Your task to perform on an android device: Clear the shopping cart on newegg. Image 0: 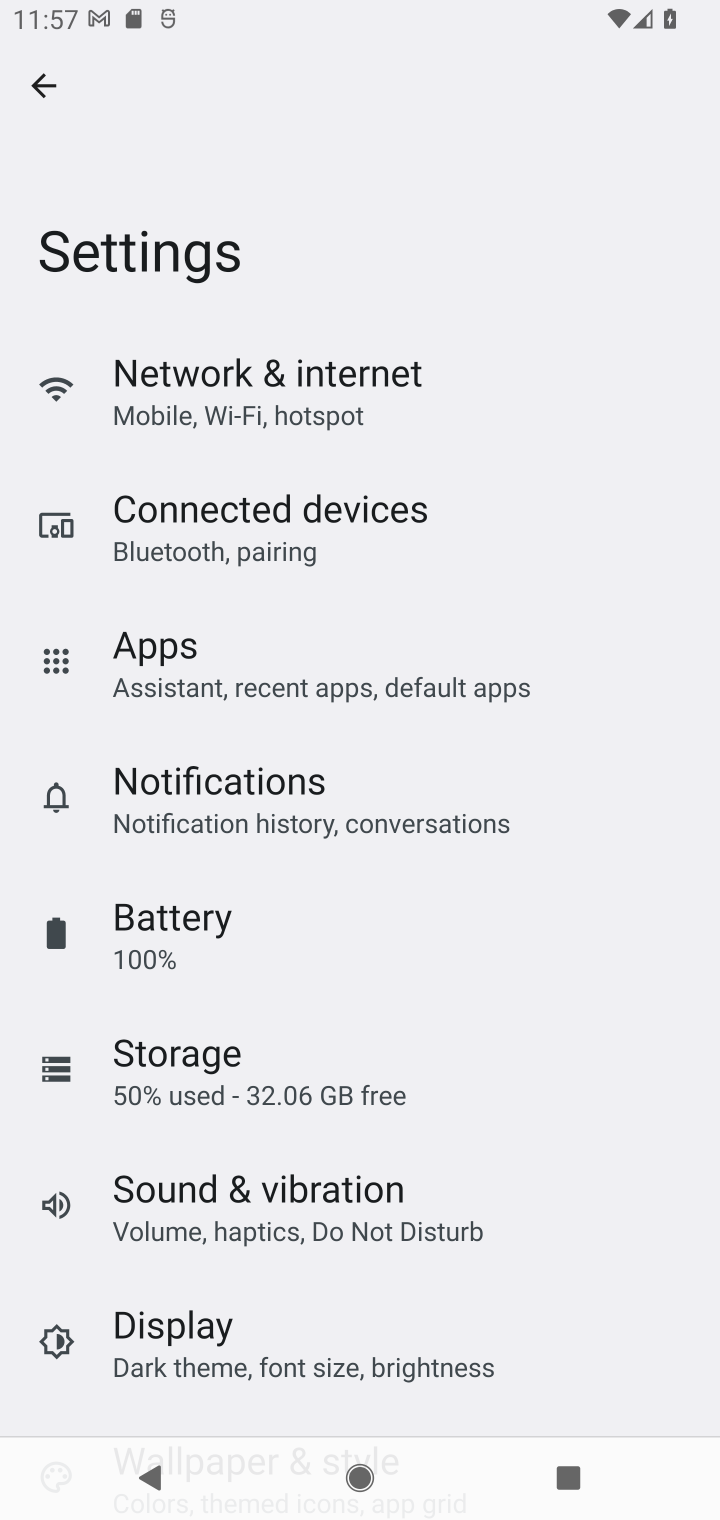
Step 0: press home button
Your task to perform on an android device: Clear the shopping cart on newegg. Image 1: 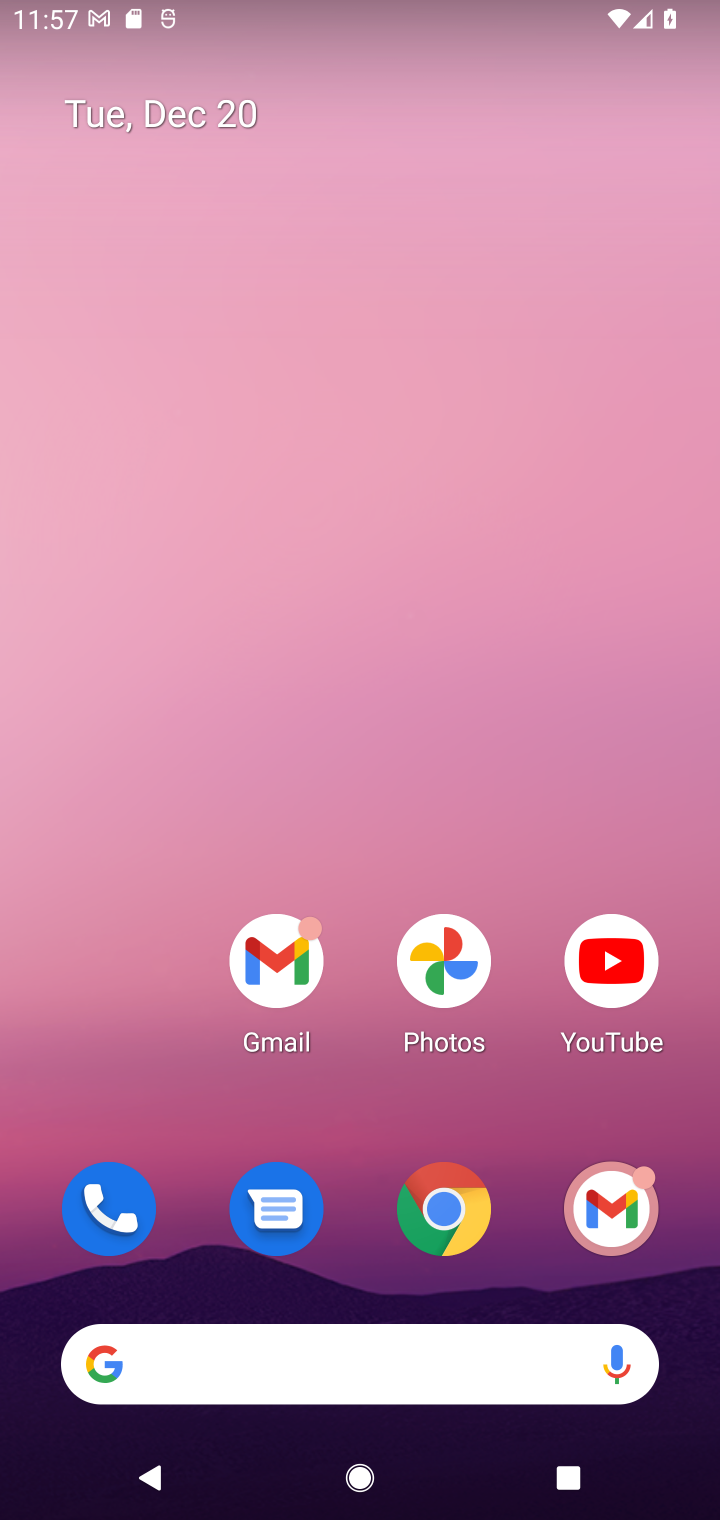
Step 1: click (464, 1223)
Your task to perform on an android device: Clear the shopping cart on newegg. Image 2: 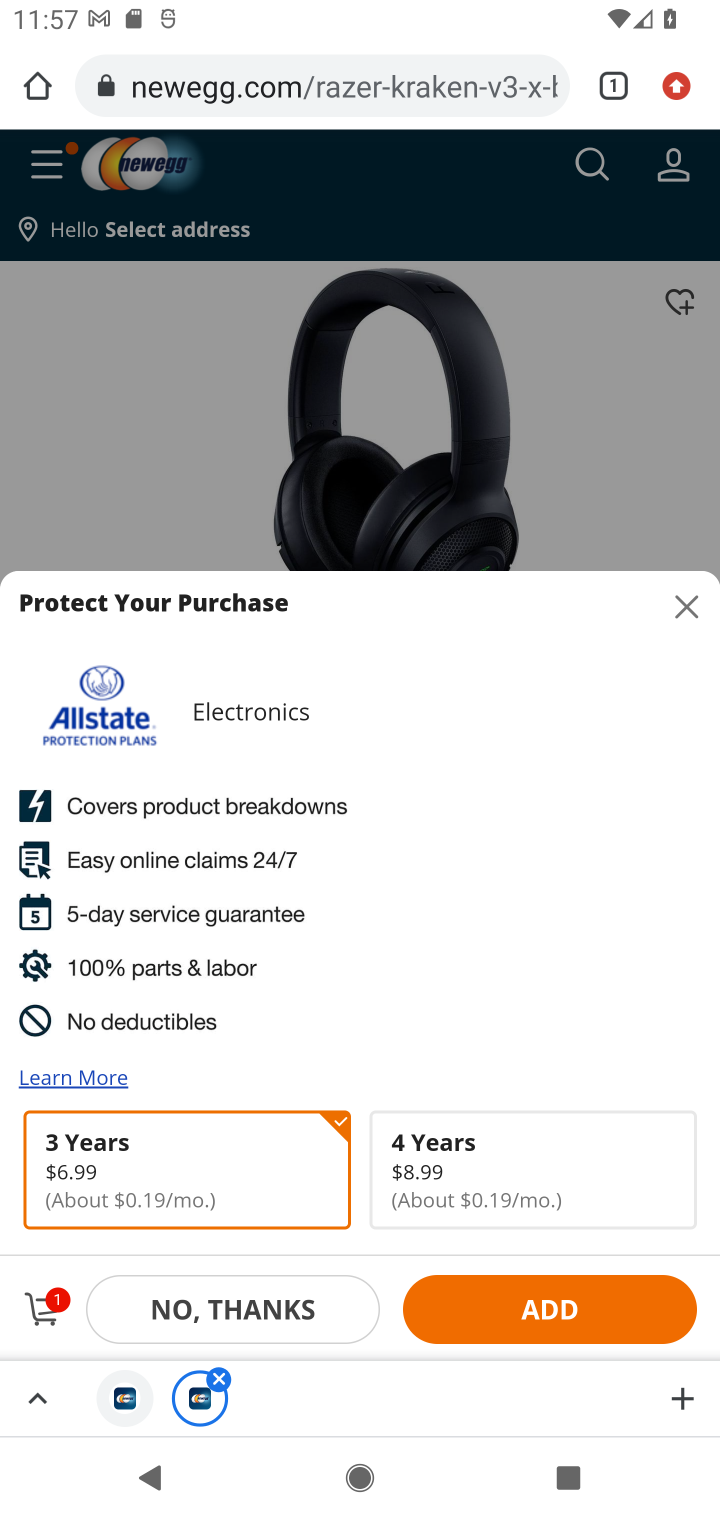
Step 2: click (685, 610)
Your task to perform on an android device: Clear the shopping cart on newegg. Image 3: 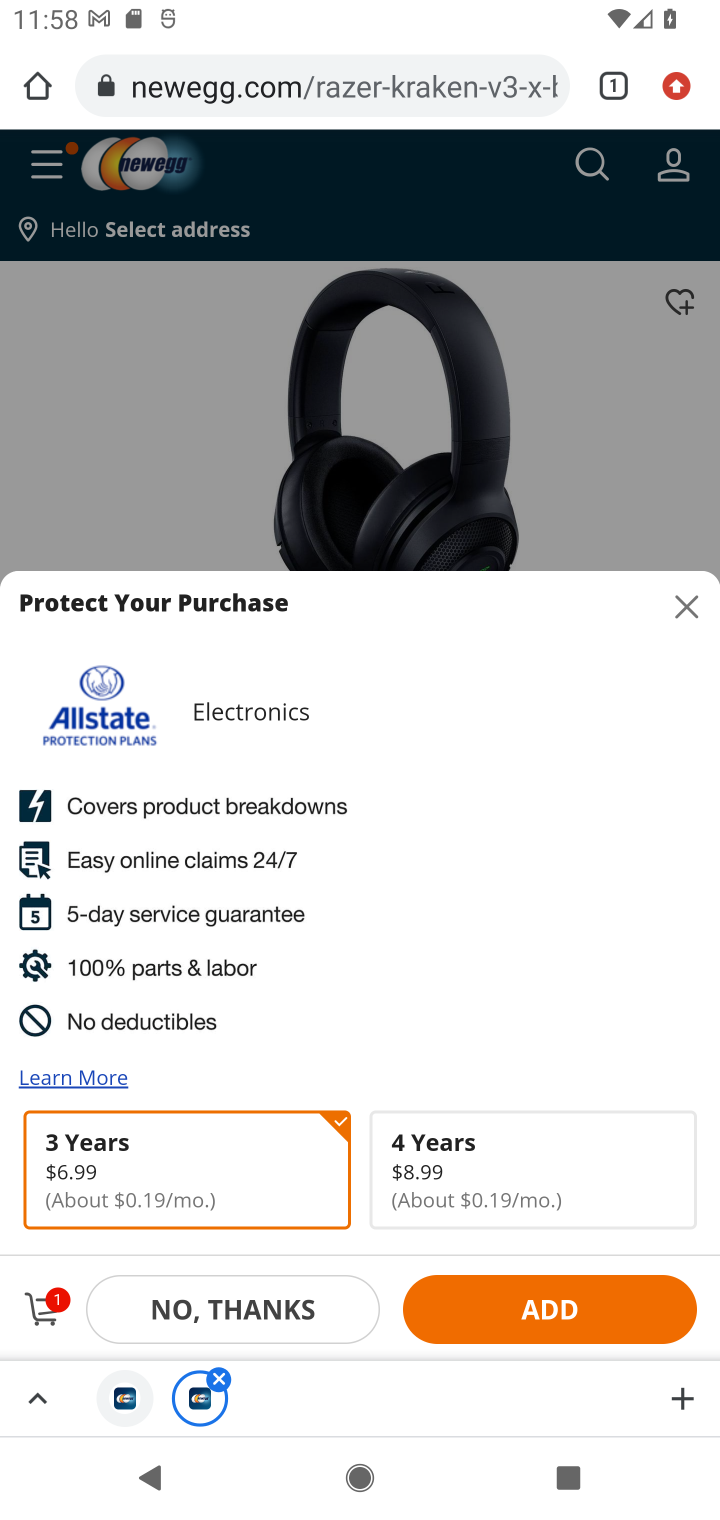
Step 3: click (696, 613)
Your task to perform on an android device: Clear the shopping cart on newegg. Image 4: 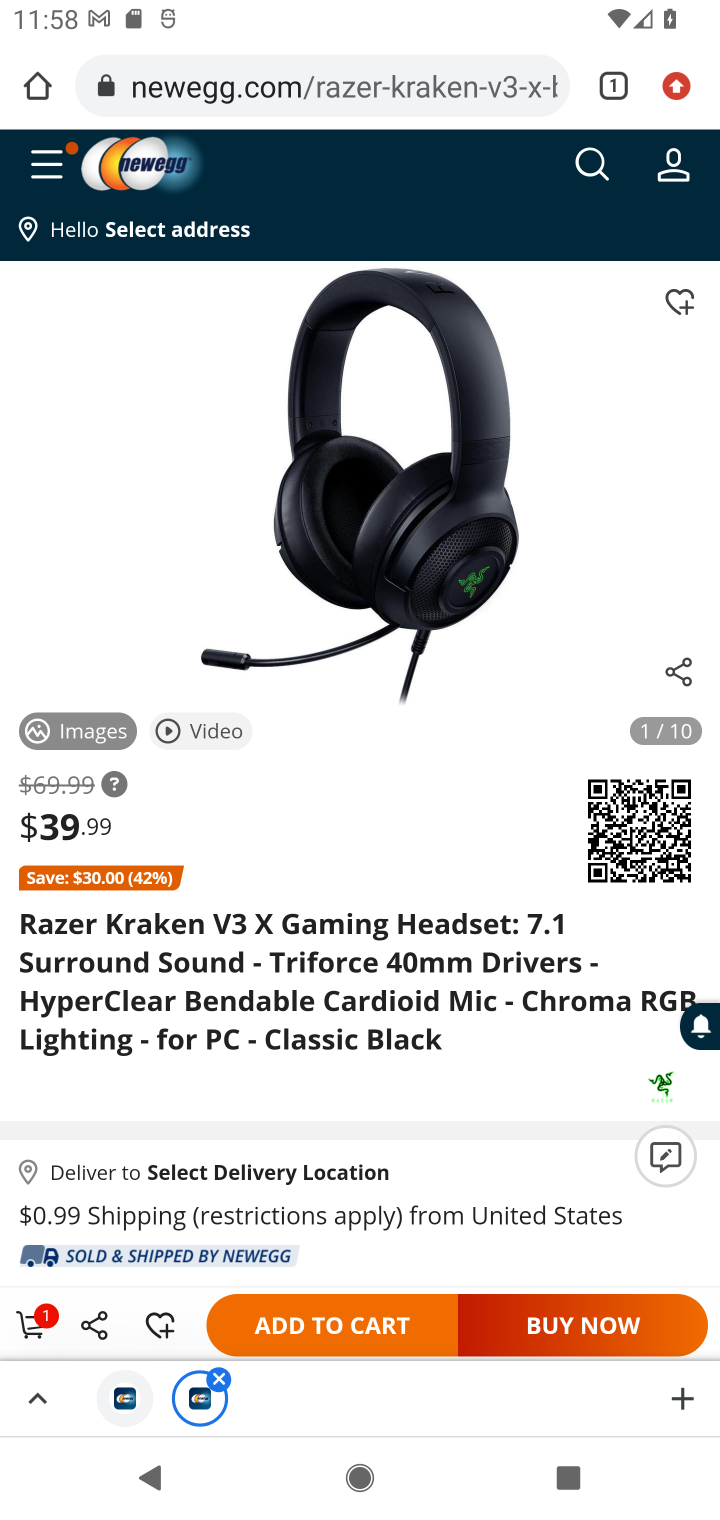
Step 4: click (30, 1325)
Your task to perform on an android device: Clear the shopping cart on newegg. Image 5: 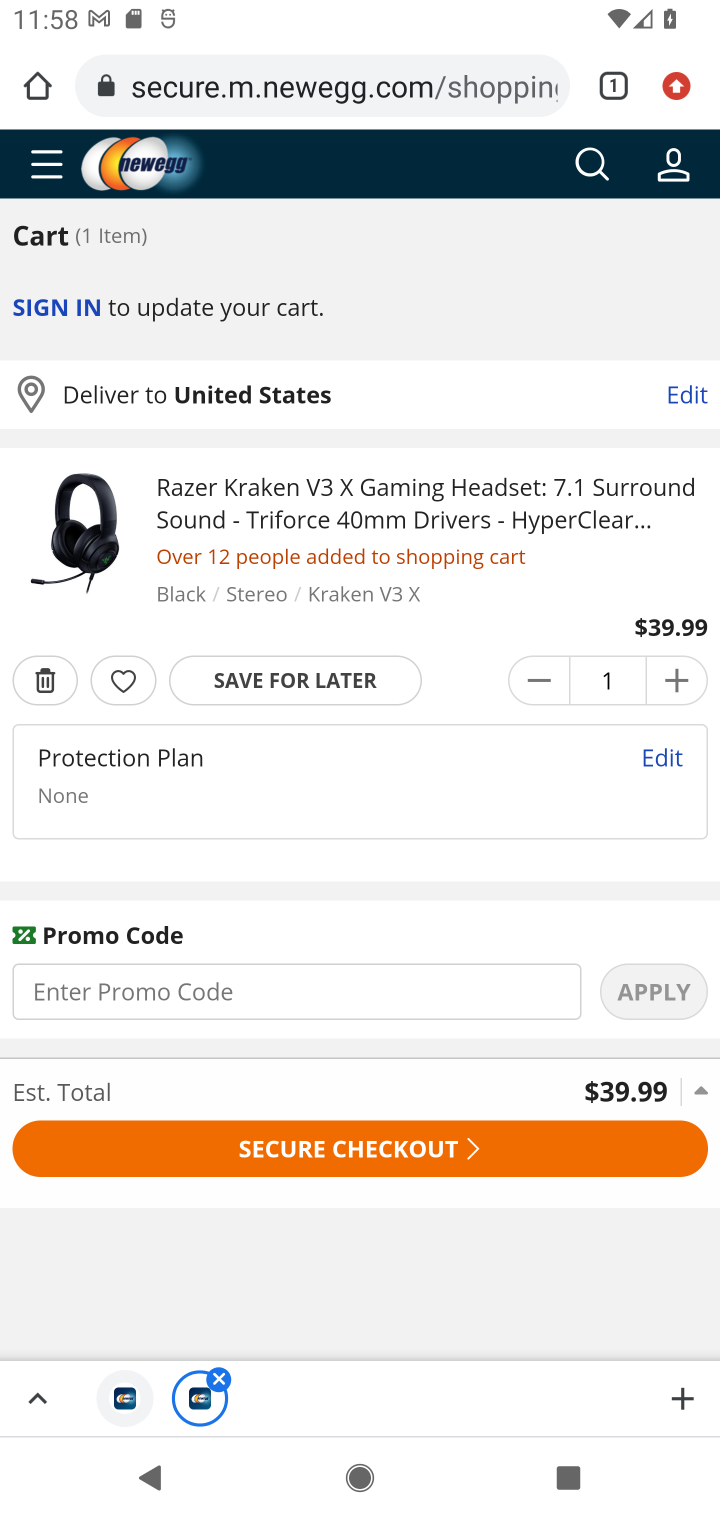
Step 5: click (35, 678)
Your task to perform on an android device: Clear the shopping cart on newegg. Image 6: 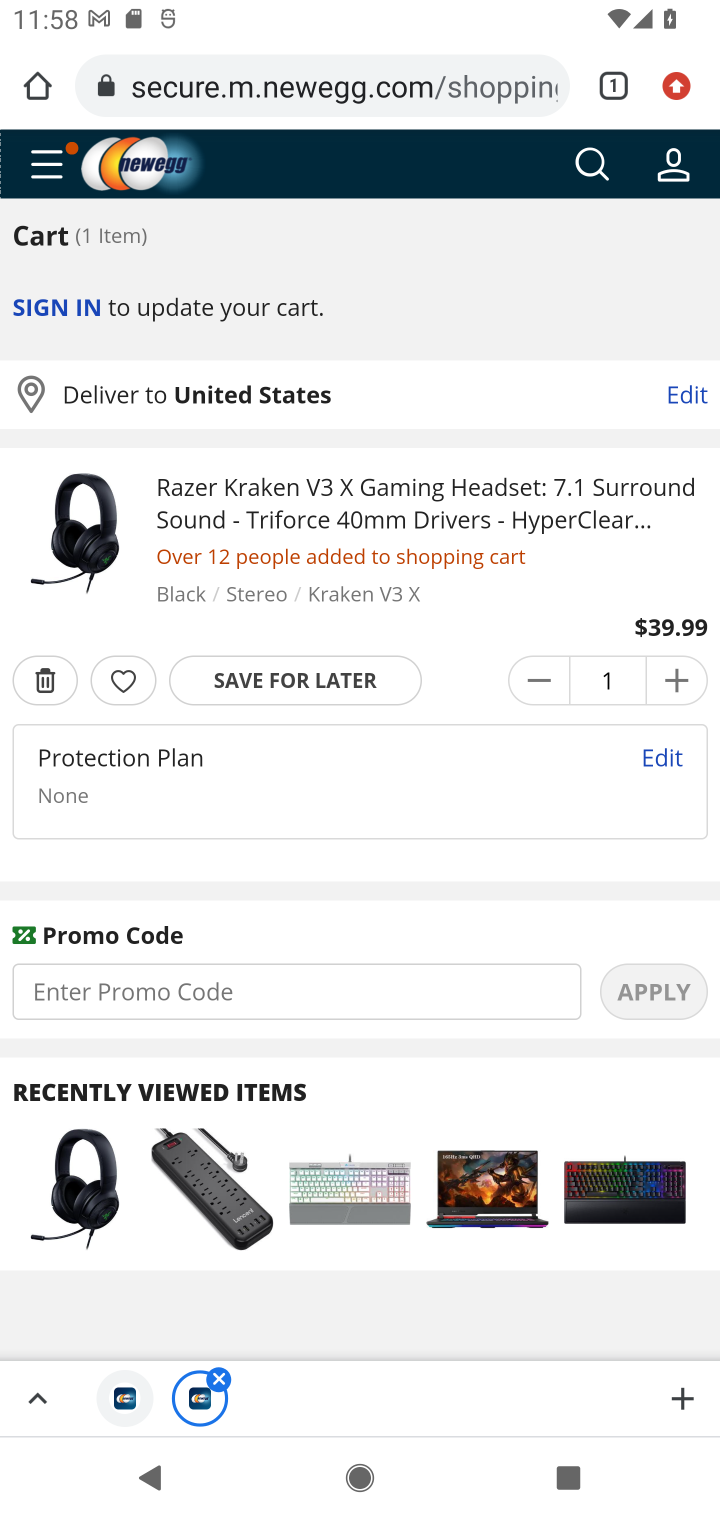
Step 6: click (34, 688)
Your task to perform on an android device: Clear the shopping cart on newegg. Image 7: 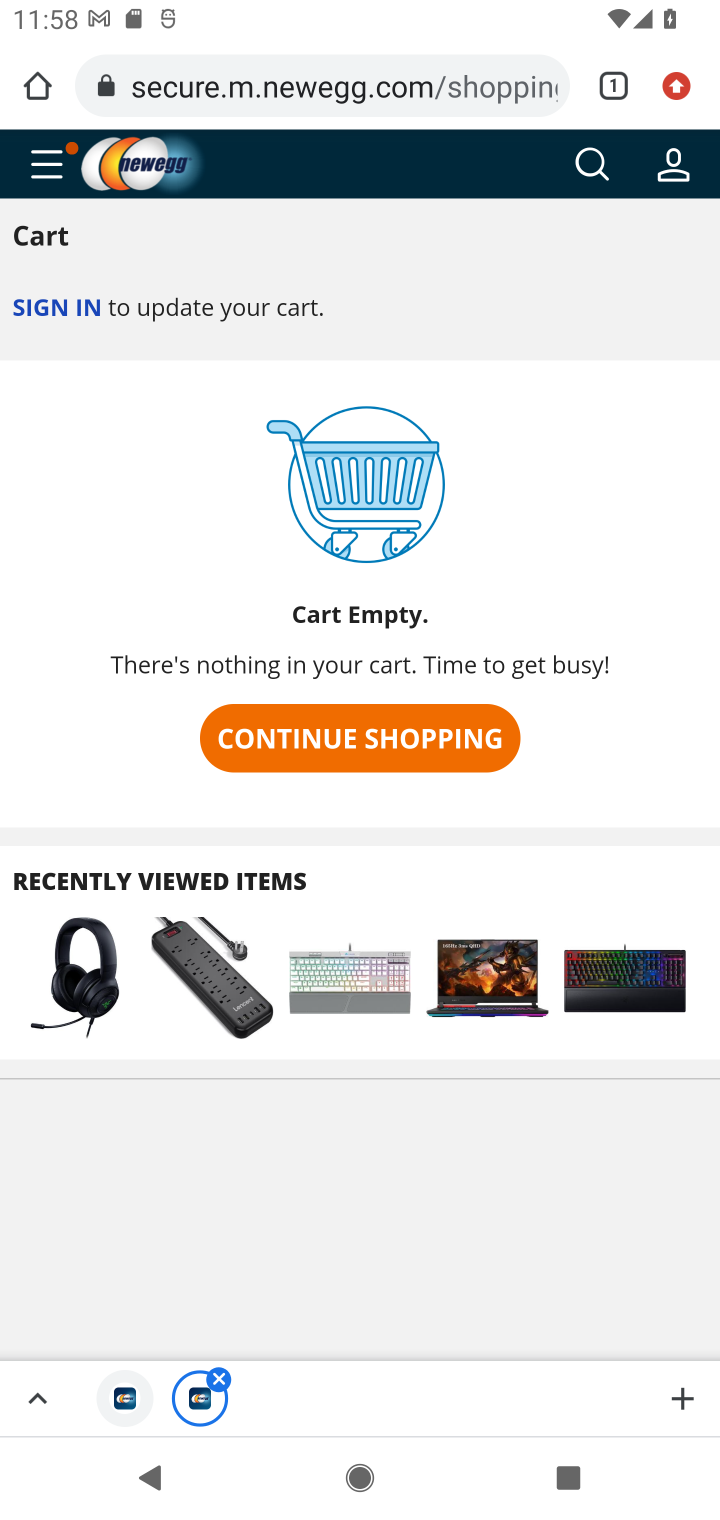
Step 7: task complete